Your task to perform on an android device: turn off picture-in-picture Image 0: 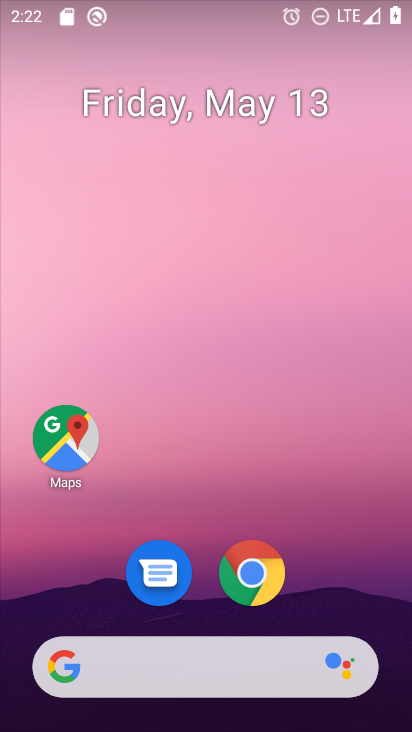
Step 0: click (264, 575)
Your task to perform on an android device: turn off picture-in-picture Image 1: 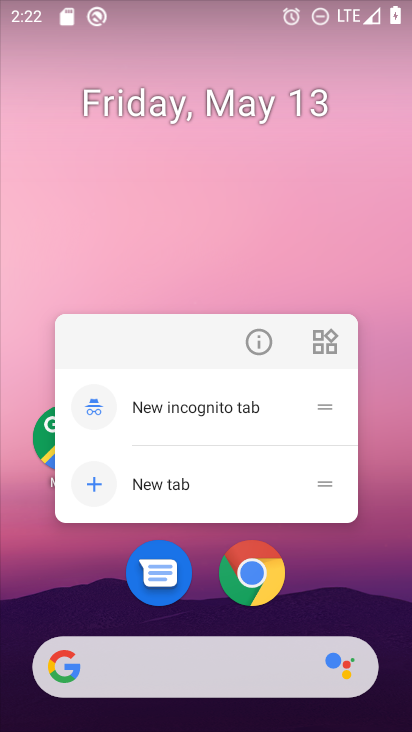
Step 1: click (269, 342)
Your task to perform on an android device: turn off picture-in-picture Image 2: 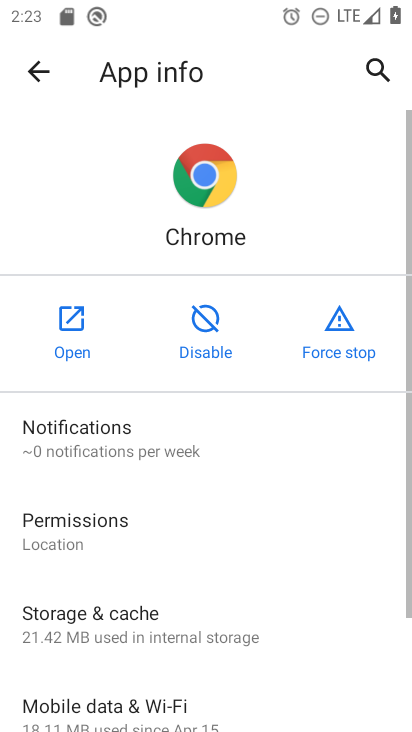
Step 2: drag from (212, 681) to (149, 149)
Your task to perform on an android device: turn off picture-in-picture Image 3: 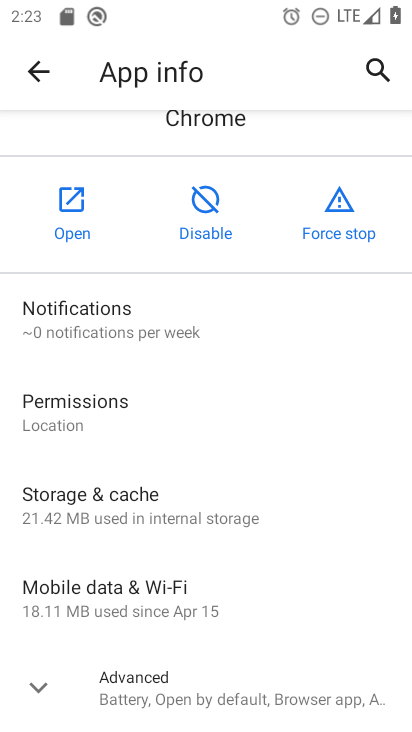
Step 3: click (266, 710)
Your task to perform on an android device: turn off picture-in-picture Image 4: 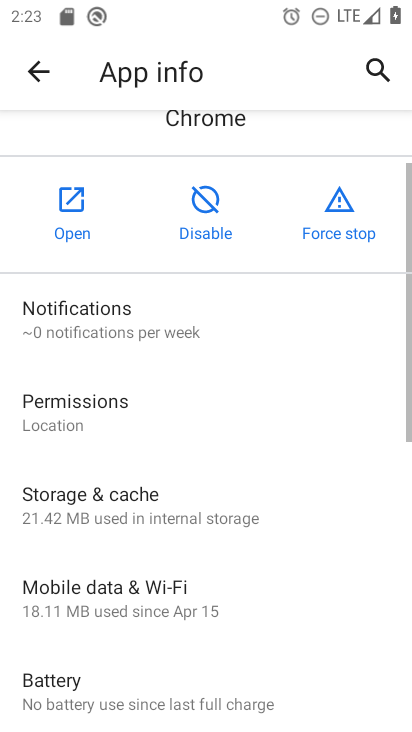
Step 4: drag from (255, 622) to (156, 40)
Your task to perform on an android device: turn off picture-in-picture Image 5: 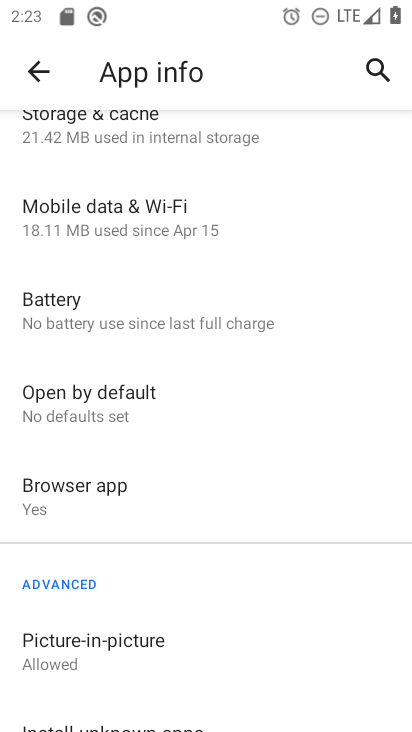
Step 5: drag from (287, 660) to (268, 166)
Your task to perform on an android device: turn off picture-in-picture Image 6: 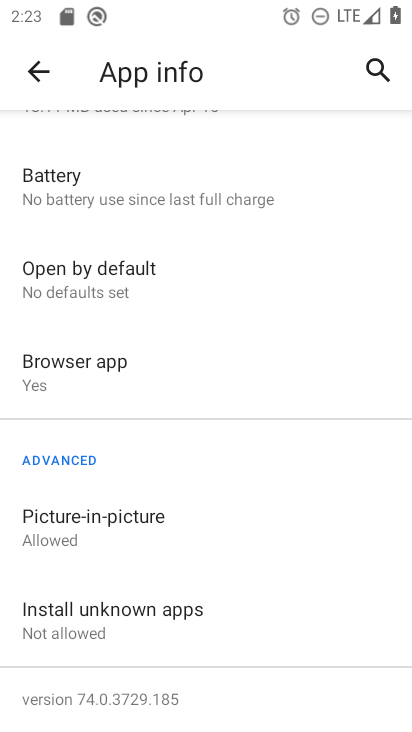
Step 6: click (138, 524)
Your task to perform on an android device: turn off picture-in-picture Image 7: 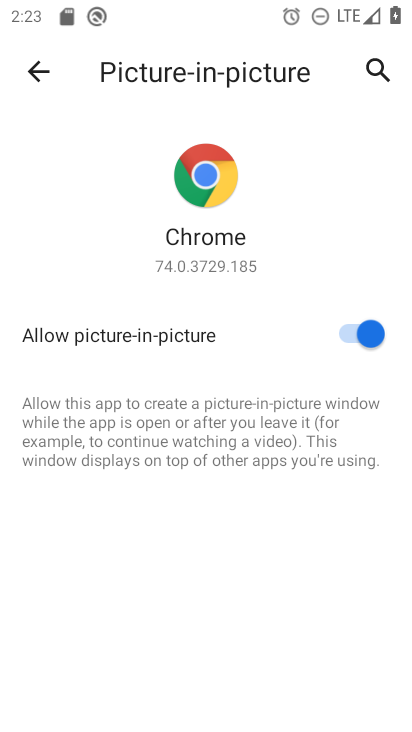
Step 7: click (363, 329)
Your task to perform on an android device: turn off picture-in-picture Image 8: 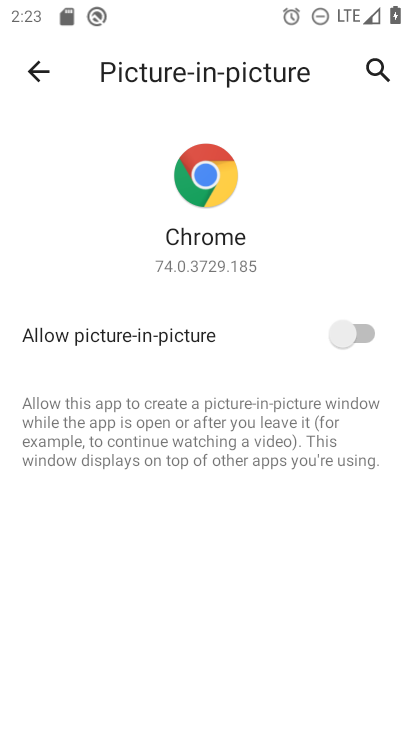
Step 8: task complete